Your task to perform on an android device: turn notification dots off Image 0: 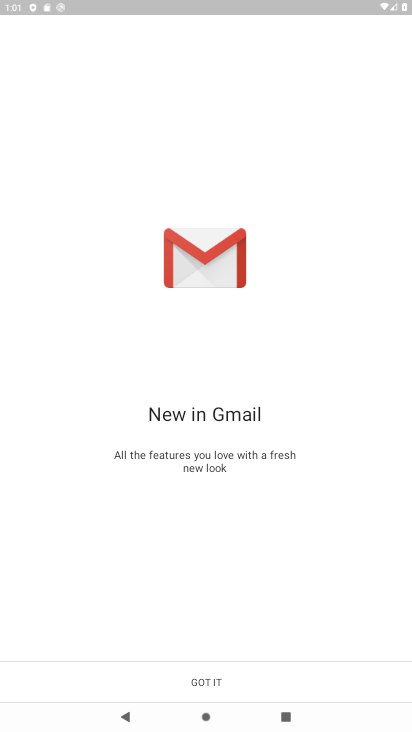
Step 0: drag from (217, 585) to (209, 493)
Your task to perform on an android device: turn notification dots off Image 1: 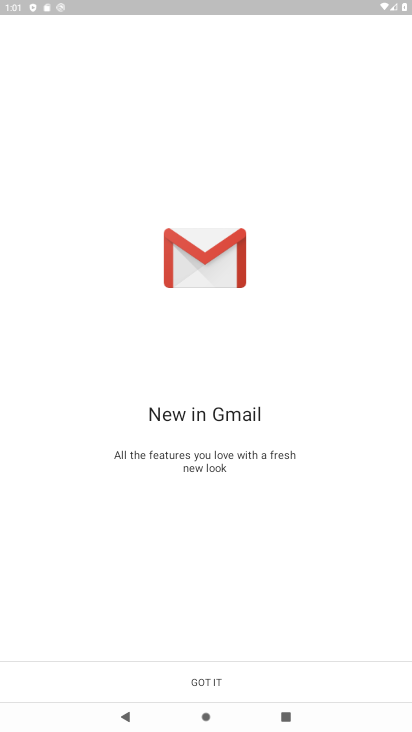
Step 1: drag from (169, 627) to (227, 351)
Your task to perform on an android device: turn notification dots off Image 2: 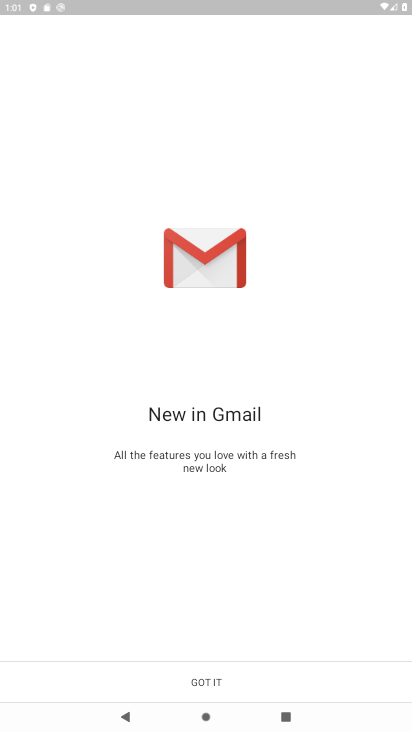
Step 2: drag from (257, 582) to (277, 343)
Your task to perform on an android device: turn notification dots off Image 3: 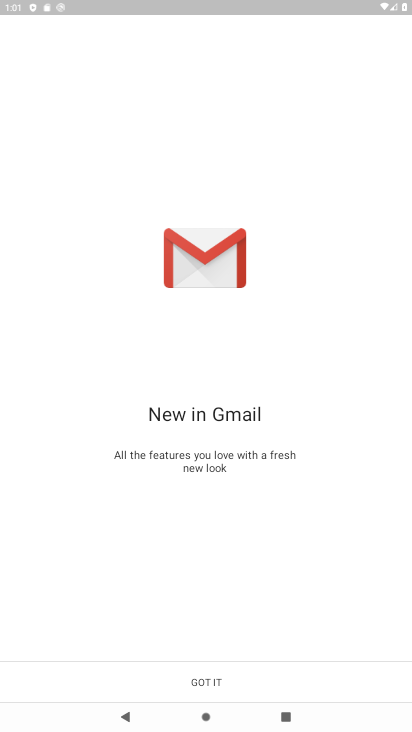
Step 3: click (190, 676)
Your task to perform on an android device: turn notification dots off Image 4: 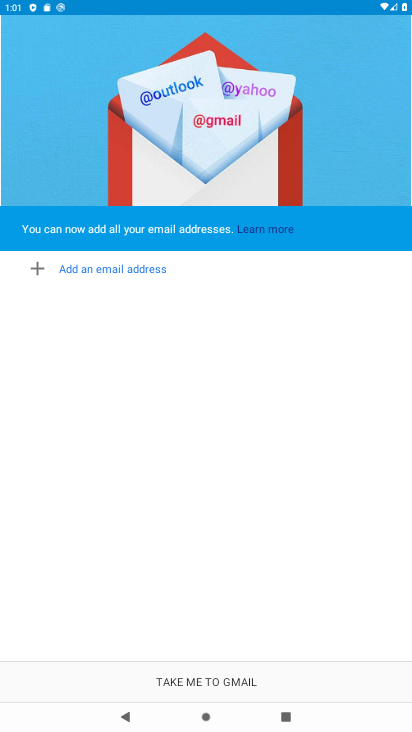
Step 4: drag from (237, 530) to (258, 290)
Your task to perform on an android device: turn notification dots off Image 5: 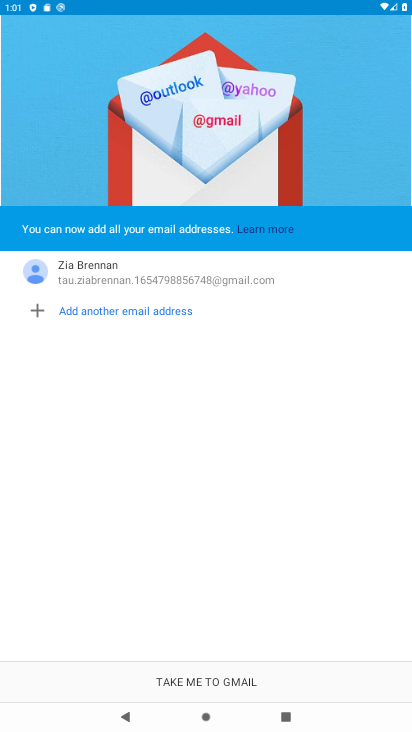
Step 5: drag from (213, 524) to (216, 411)
Your task to perform on an android device: turn notification dots off Image 6: 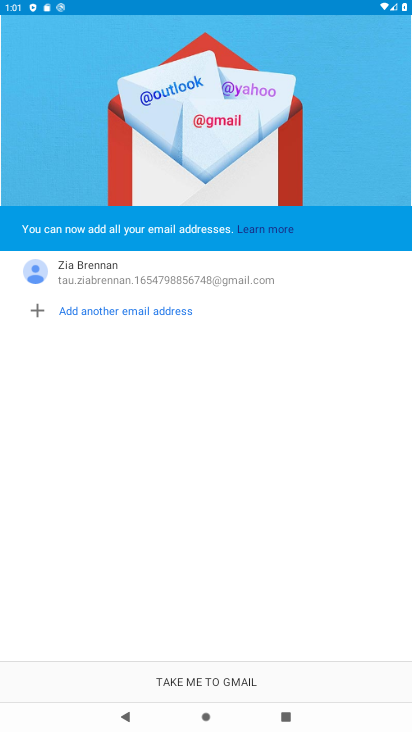
Step 6: drag from (218, 538) to (246, 387)
Your task to perform on an android device: turn notification dots off Image 7: 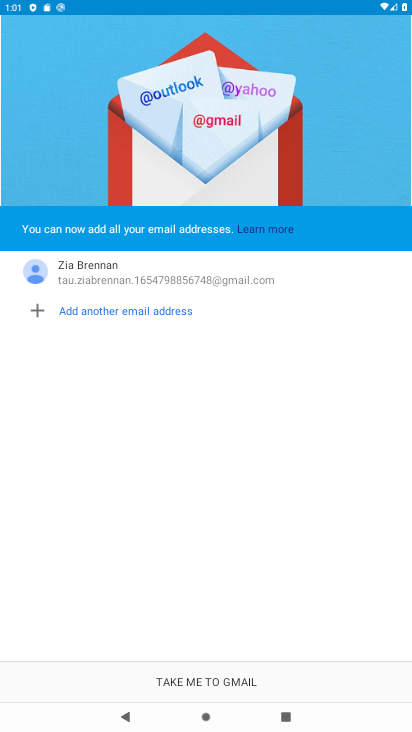
Step 7: click (197, 675)
Your task to perform on an android device: turn notification dots off Image 8: 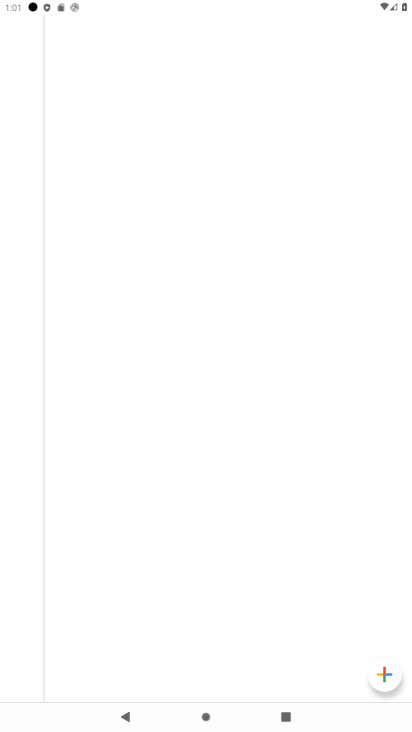
Step 8: drag from (229, 619) to (242, 231)
Your task to perform on an android device: turn notification dots off Image 9: 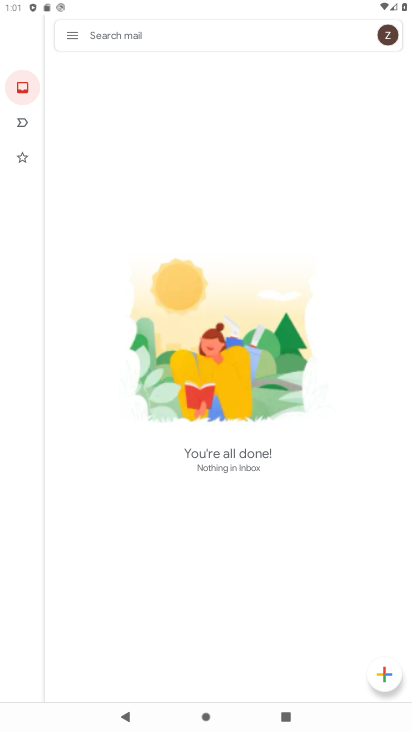
Step 9: drag from (193, 475) to (193, 268)
Your task to perform on an android device: turn notification dots off Image 10: 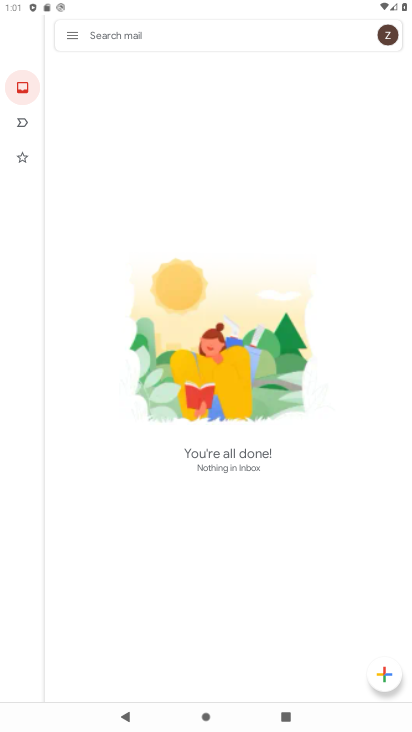
Step 10: drag from (206, 507) to (241, 225)
Your task to perform on an android device: turn notification dots off Image 11: 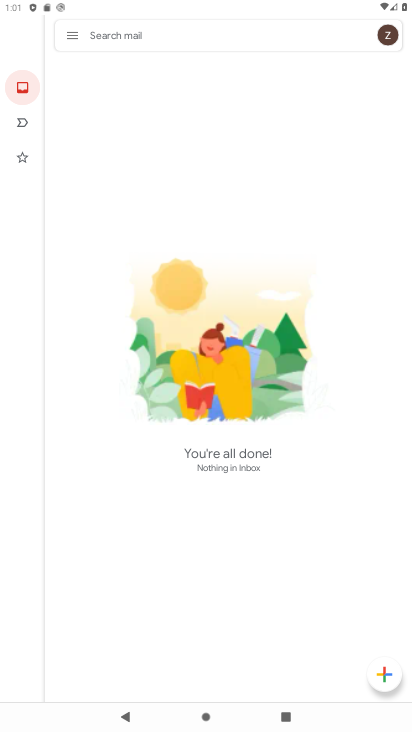
Step 11: drag from (207, 226) to (229, 552)
Your task to perform on an android device: turn notification dots off Image 12: 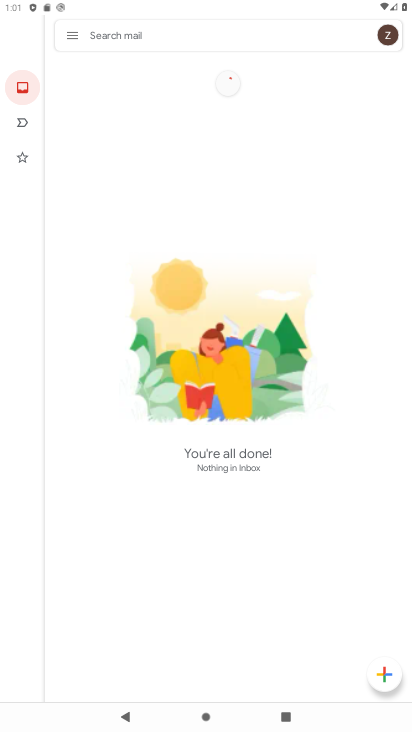
Step 12: click (58, 28)
Your task to perform on an android device: turn notification dots off Image 13: 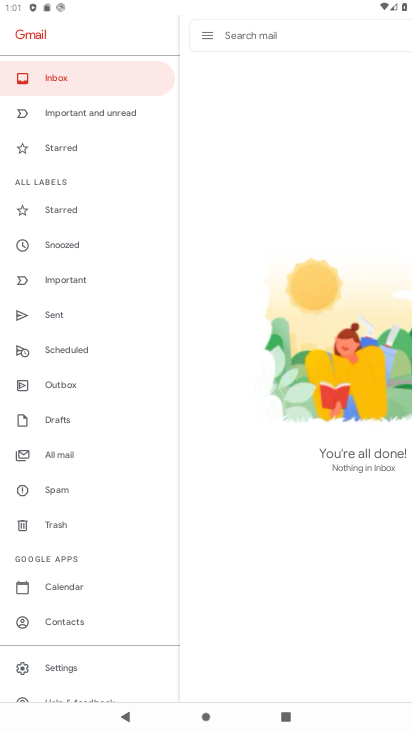
Step 13: click (200, 37)
Your task to perform on an android device: turn notification dots off Image 14: 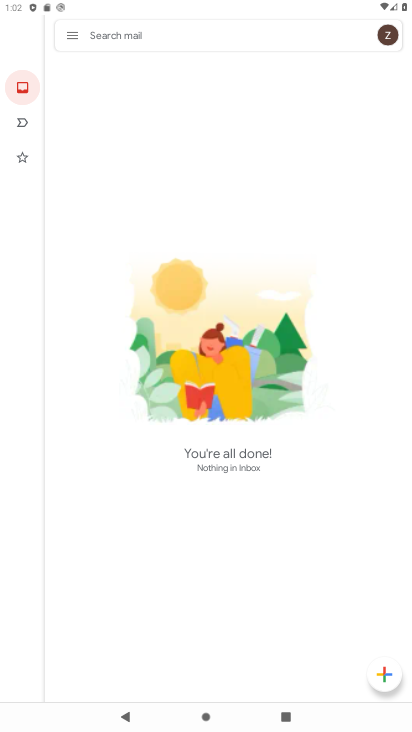
Step 14: drag from (170, 439) to (223, 221)
Your task to perform on an android device: turn notification dots off Image 15: 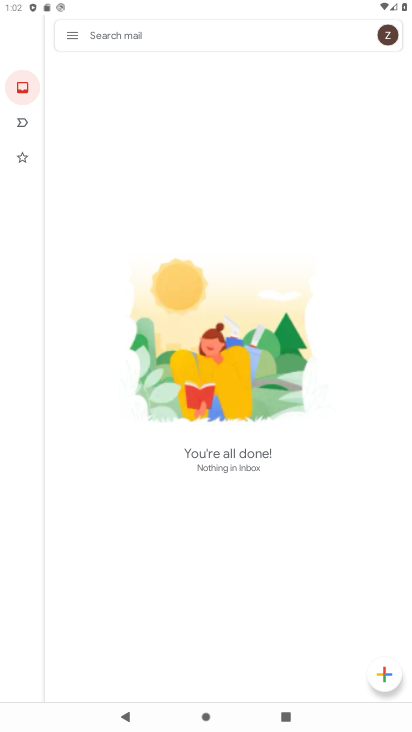
Step 15: drag from (209, 285) to (180, 566)
Your task to perform on an android device: turn notification dots off Image 16: 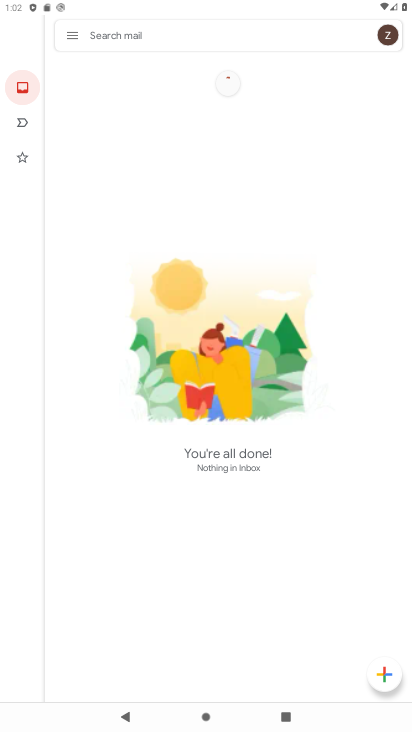
Step 16: click (68, 27)
Your task to perform on an android device: turn notification dots off Image 17: 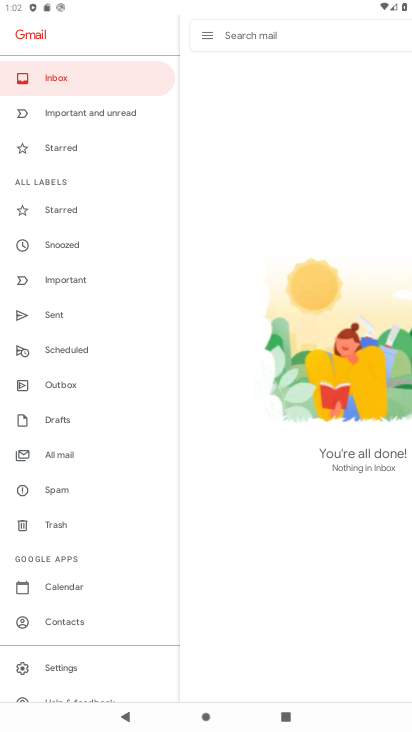
Step 17: click (205, 35)
Your task to perform on an android device: turn notification dots off Image 18: 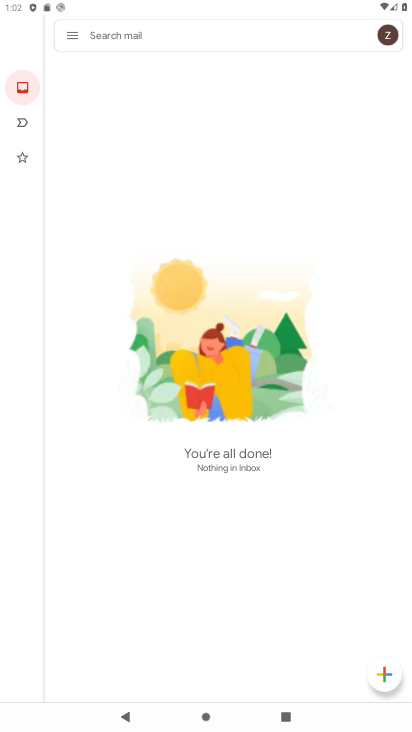
Step 18: click (78, 38)
Your task to perform on an android device: turn notification dots off Image 19: 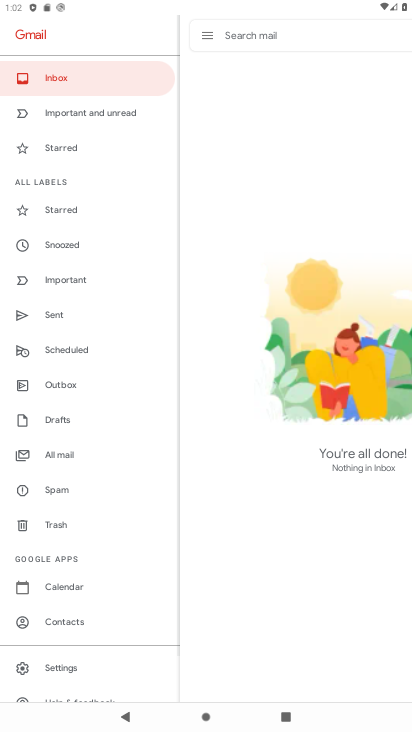
Step 19: click (207, 32)
Your task to perform on an android device: turn notification dots off Image 20: 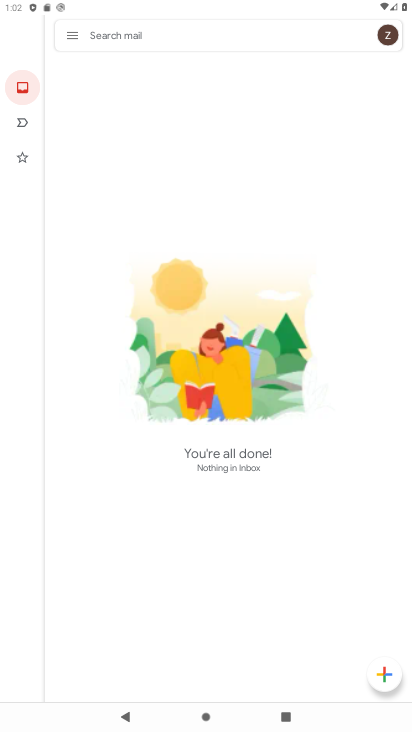
Step 20: press back button
Your task to perform on an android device: turn notification dots off Image 21: 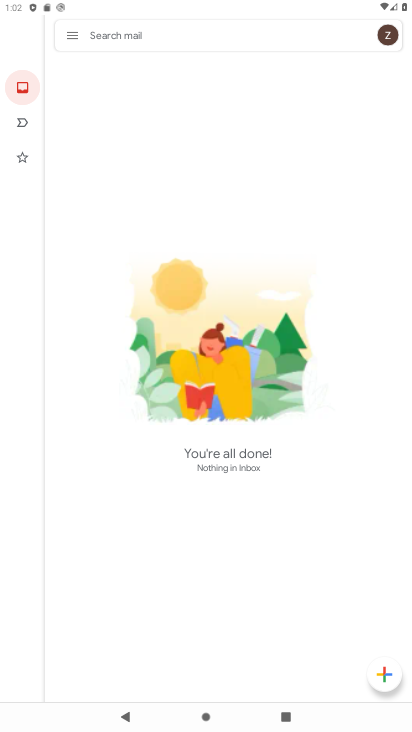
Step 21: press home button
Your task to perform on an android device: turn notification dots off Image 22: 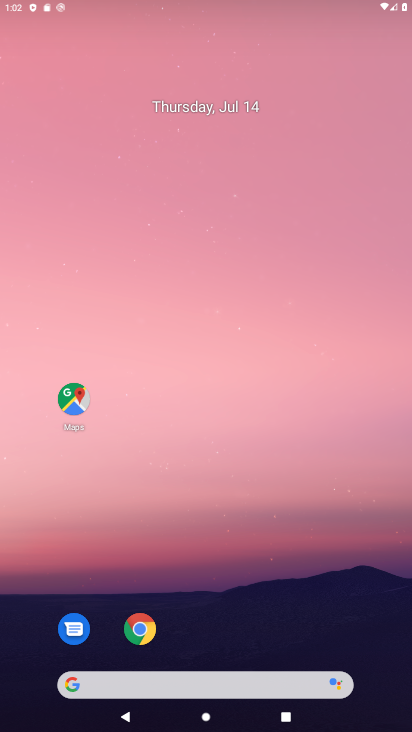
Step 22: click (254, 175)
Your task to perform on an android device: turn notification dots off Image 23: 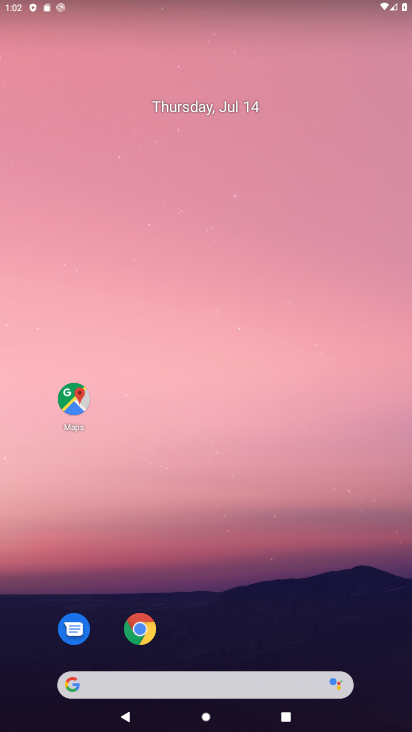
Step 23: drag from (179, 615) to (264, 169)
Your task to perform on an android device: turn notification dots off Image 24: 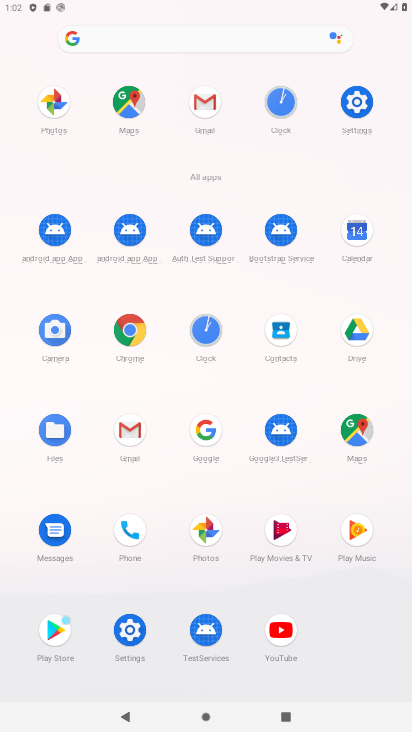
Step 24: drag from (174, 597) to (174, 298)
Your task to perform on an android device: turn notification dots off Image 25: 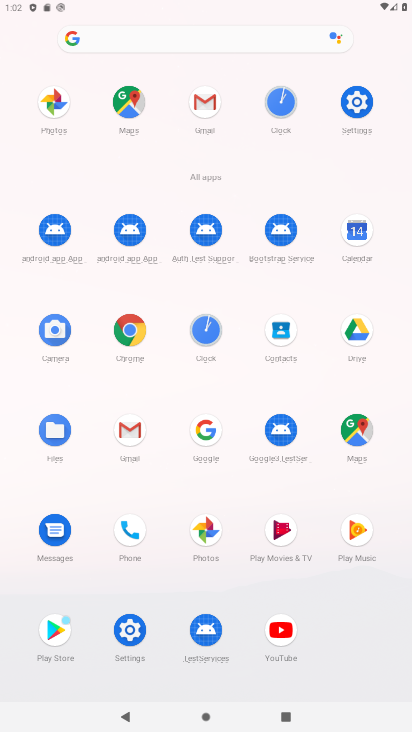
Step 25: click (129, 627)
Your task to perform on an android device: turn notification dots off Image 26: 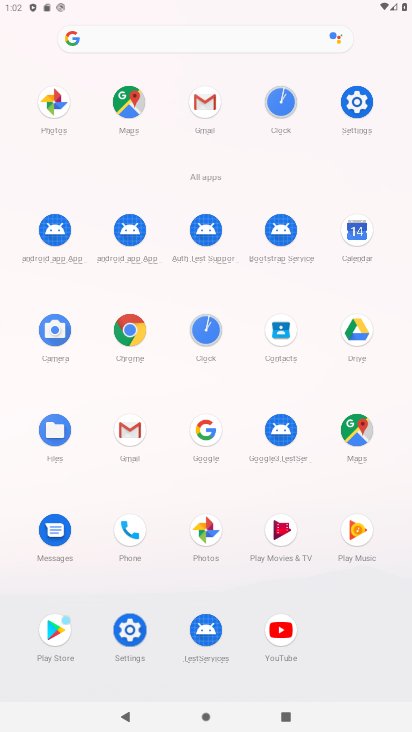
Step 26: click (129, 627)
Your task to perform on an android device: turn notification dots off Image 27: 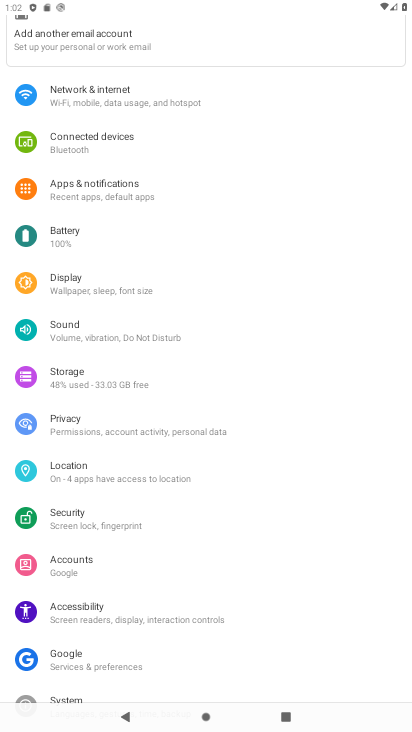
Step 27: drag from (168, 218) to (315, 668)
Your task to perform on an android device: turn notification dots off Image 28: 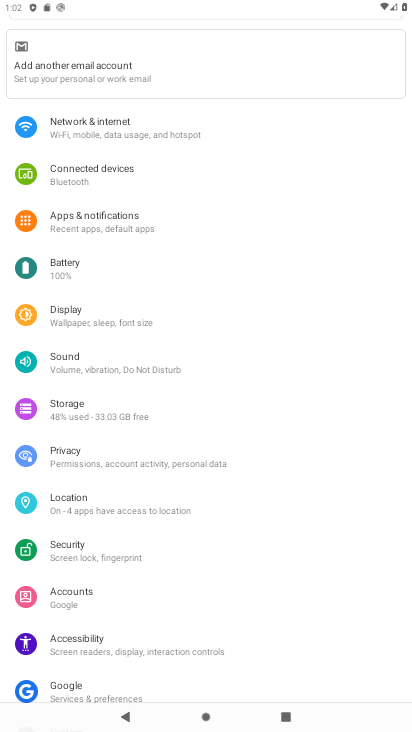
Step 28: click (151, 137)
Your task to perform on an android device: turn notification dots off Image 29: 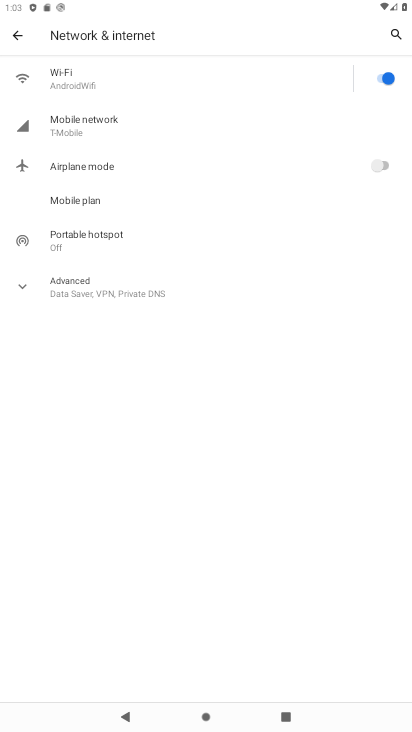
Step 29: drag from (193, 213) to (258, 694)
Your task to perform on an android device: turn notification dots off Image 30: 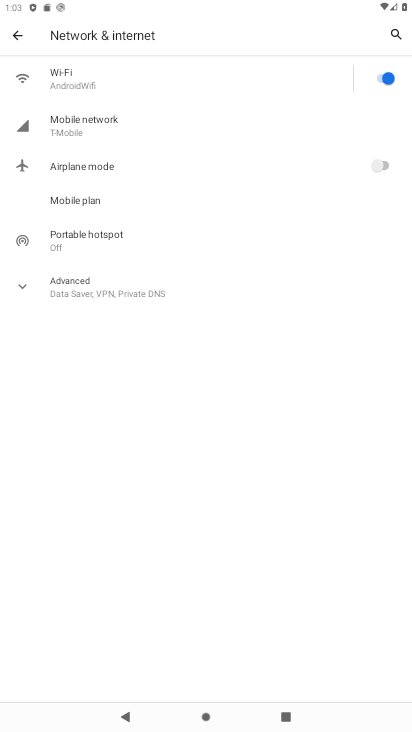
Step 30: drag from (143, 105) to (199, 375)
Your task to perform on an android device: turn notification dots off Image 31: 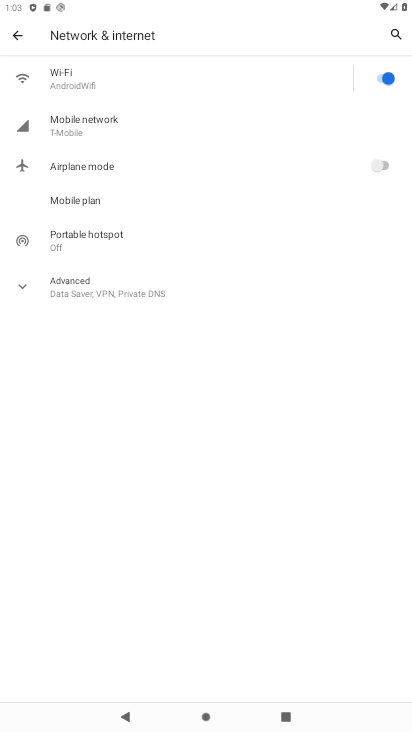
Step 31: drag from (189, 100) to (204, 491)
Your task to perform on an android device: turn notification dots off Image 32: 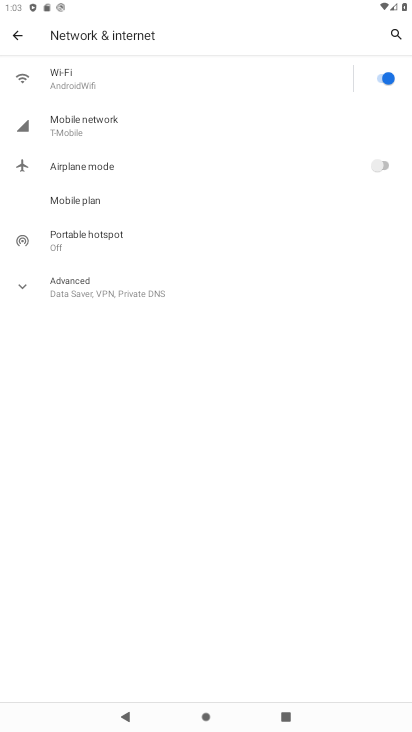
Step 32: drag from (177, 68) to (221, 665)
Your task to perform on an android device: turn notification dots off Image 33: 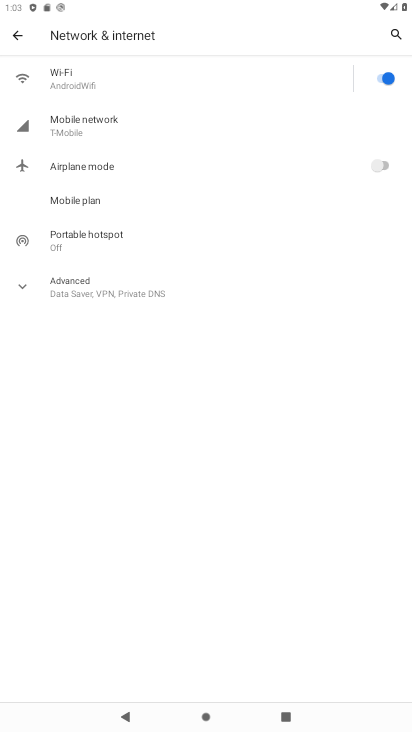
Step 33: drag from (125, 121) to (320, 567)
Your task to perform on an android device: turn notification dots off Image 34: 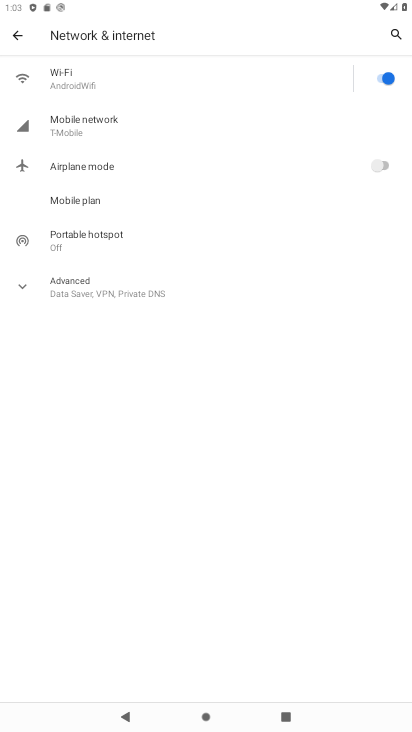
Step 34: drag from (148, 116) to (328, 675)
Your task to perform on an android device: turn notification dots off Image 35: 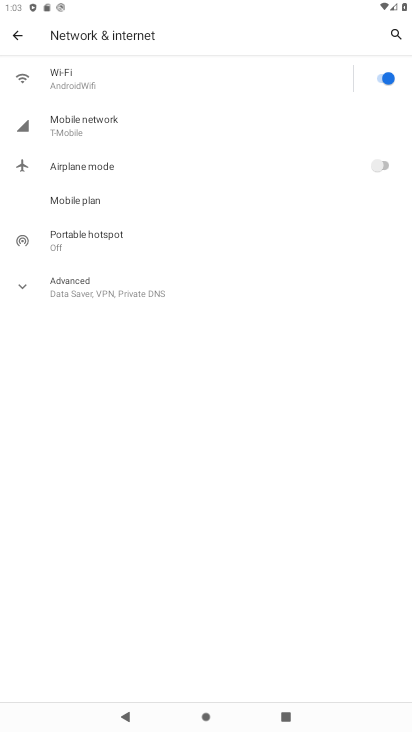
Step 35: click (15, 29)
Your task to perform on an android device: turn notification dots off Image 36: 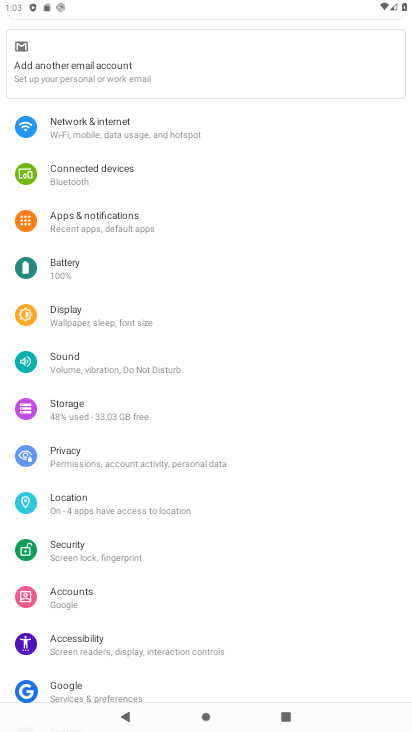
Step 36: click (144, 232)
Your task to perform on an android device: turn notification dots off Image 37: 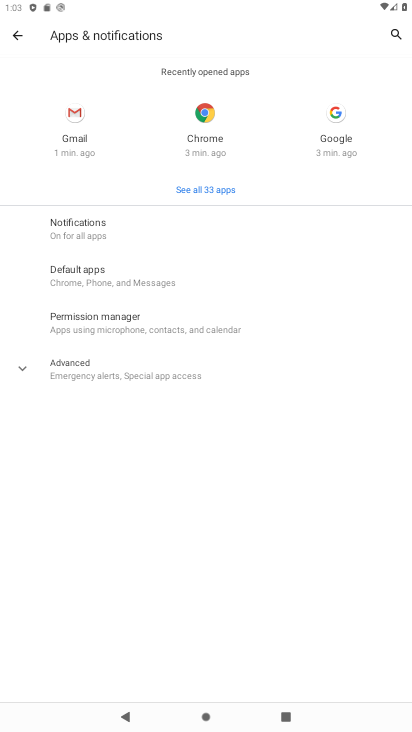
Step 37: click (120, 364)
Your task to perform on an android device: turn notification dots off Image 38: 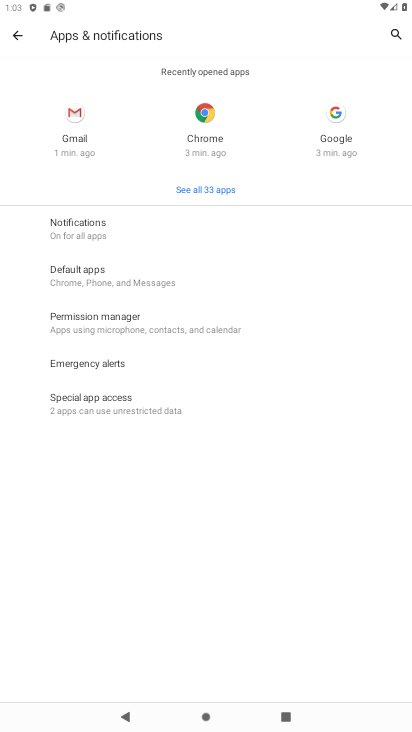
Step 38: click (140, 237)
Your task to perform on an android device: turn notification dots off Image 39: 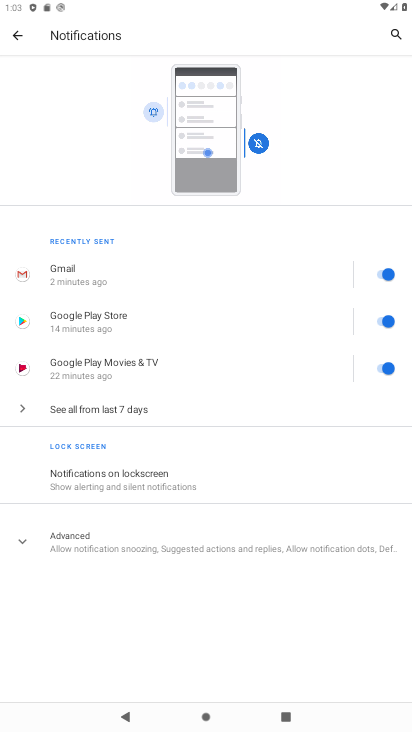
Step 39: drag from (223, 555) to (232, 305)
Your task to perform on an android device: turn notification dots off Image 40: 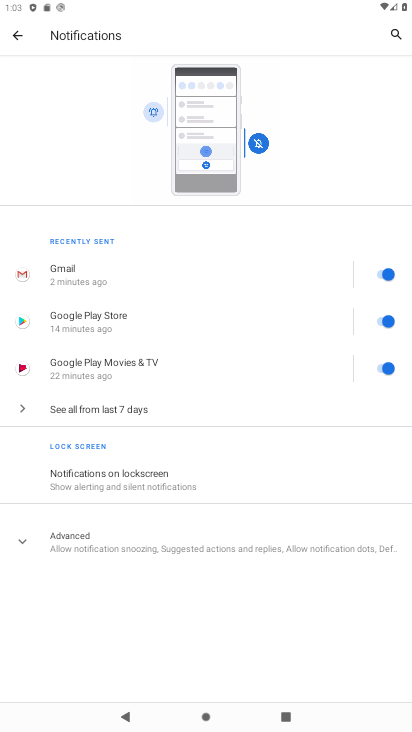
Step 40: click (118, 532)
Your task to perform on an android device: turn notification dots off Image 41: 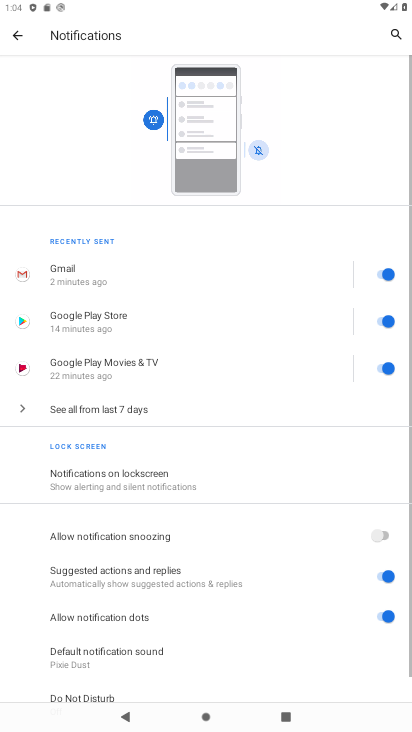
Step 41: drag from (226, 557) to (278, 241)
Your task to perform on an android device: turn notification dots off Image 42: 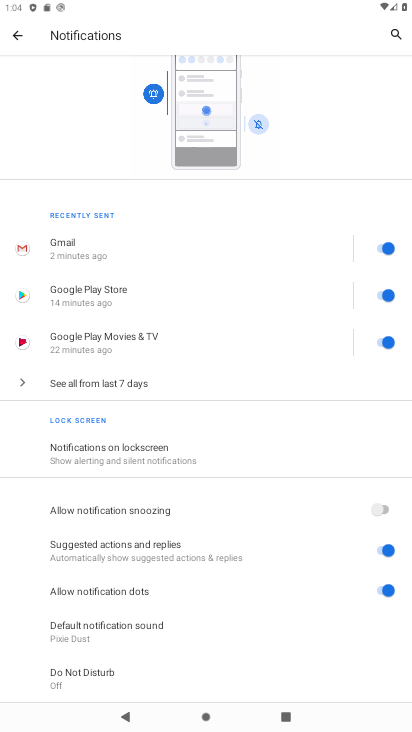
Step 42: drag from (185, 668) to (217, 482)
Your task to perform on an android device: turn notification dots off Image 43: 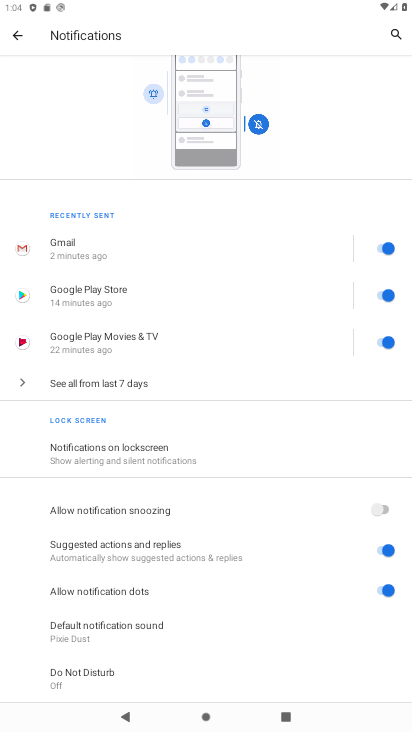
Step 43: drag from (269, 657) to (283, 602)
Your task to perform on an android device: turn notification dots off Image 44: 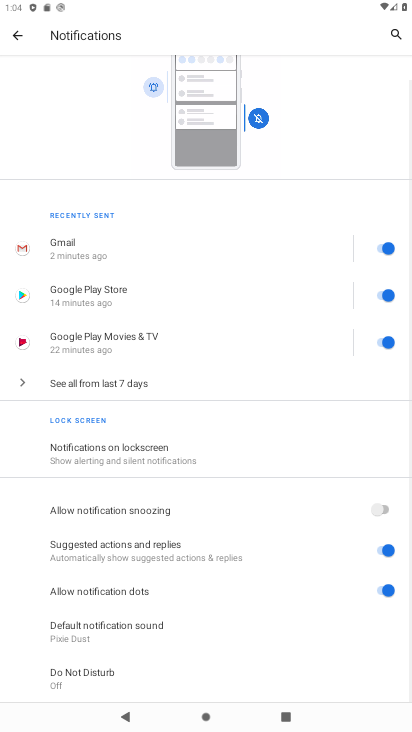
Step 44: drag from (216, 586) to (225, 202)
Your task to perform on an android device: turn notification dots off Image 45: 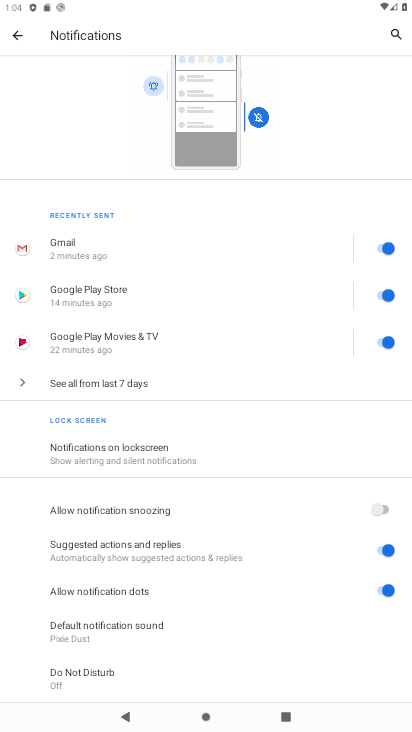
Step 45: click (223, 467)
Your task to perform on an android device: turn notification dots off Image 46: 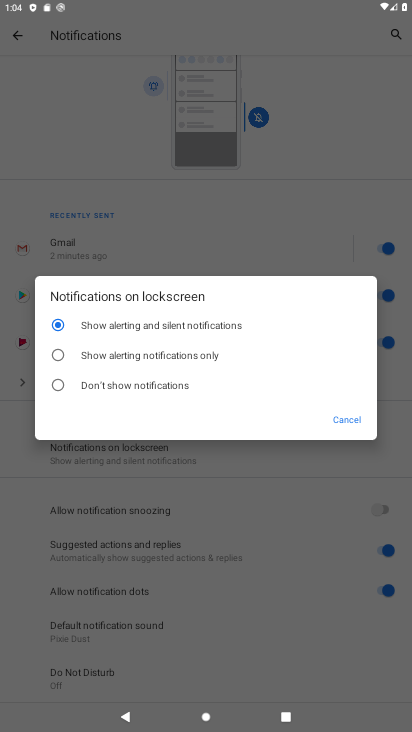
Step 46: click (49, 348)
Your task to perform on an android device: turn notification dots off Image 47: 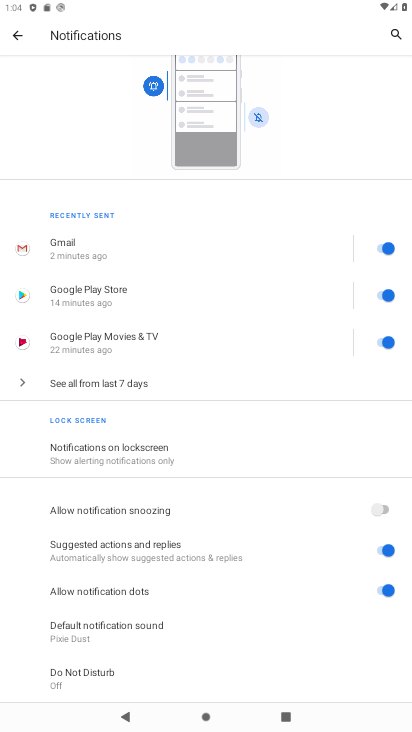
Step 47: click (377, 582)
Your task to perform on an android device: turn notification dots off Image 48: 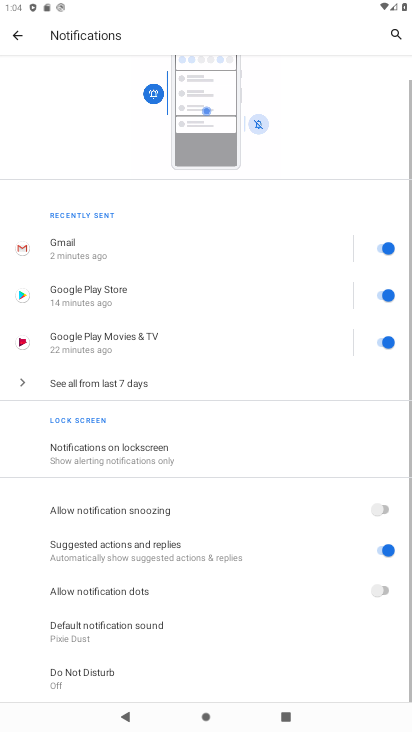
Step 48: task complete